Your task to perform on an android device: Open the stopwatch Image 0: 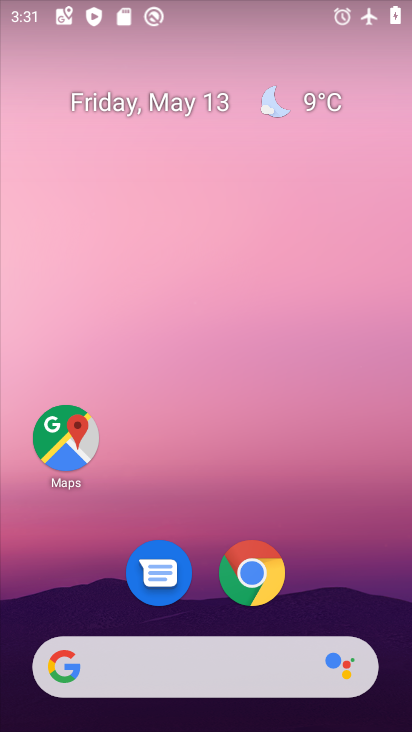
Step 0: drag from (346, 592) to (290, 1)
Your task to perform on an android device: Open the stopwatch Image 1: 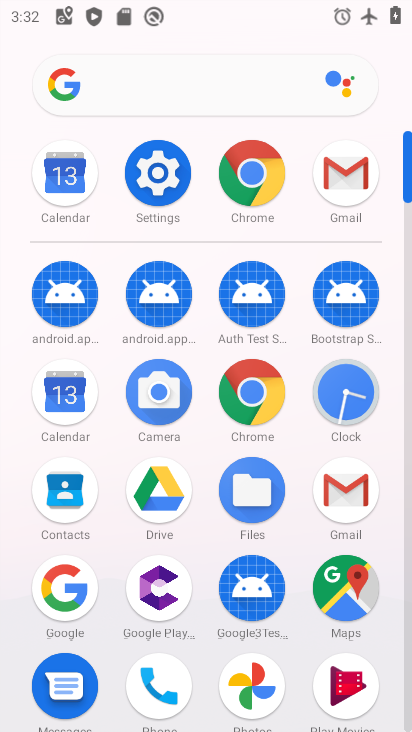
Step 1: click (342, 392)
Your task to perform on an android device: Open the stopwatch Image 2: 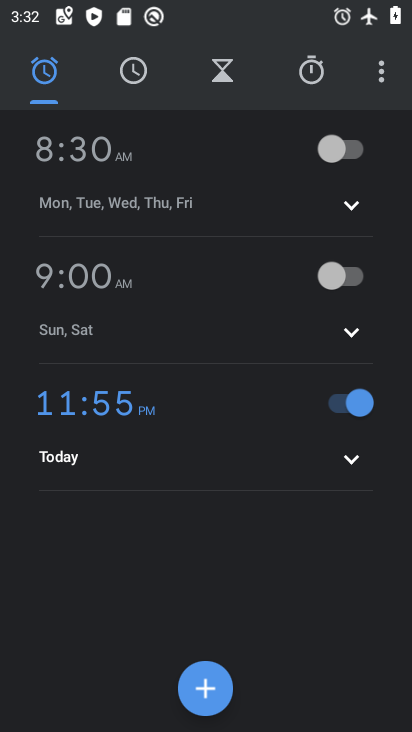
Step 2: click (312, 87)
Your task to perform on an android device: Open the stopwatch Image 3: 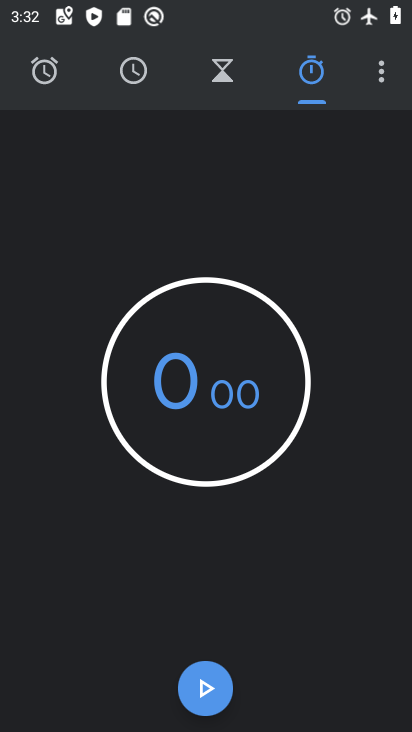
Step 3: task complete